Your task to perform on an android device: Open Google Image 0: 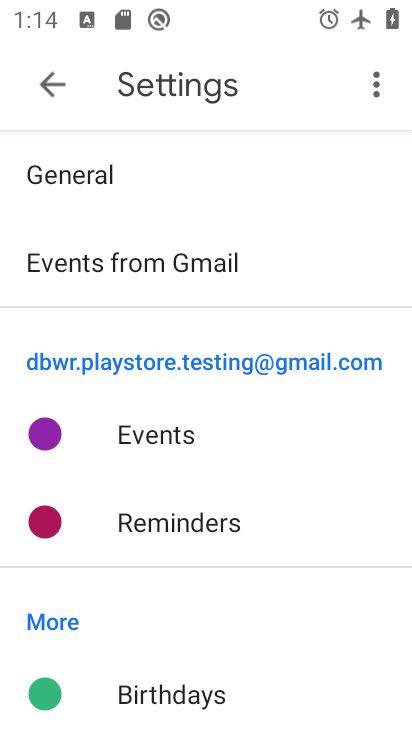
Step 0: press home button
Your task to perform on an android device: Open Google Image 1: 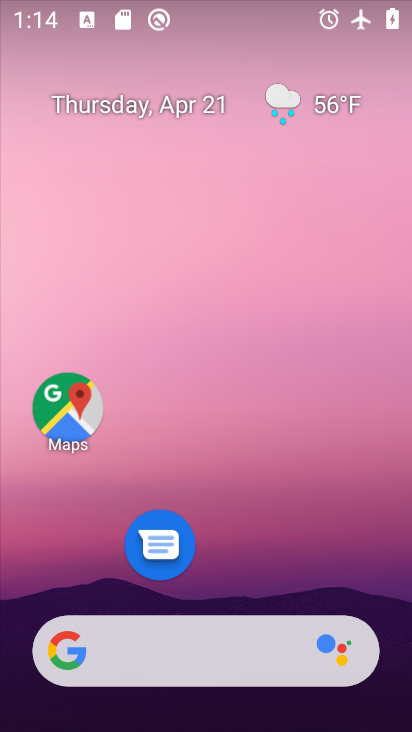
Step 1: drag from (240, 421) to (284, 189)
Your task to perform on an android device: Open Google Image 2: 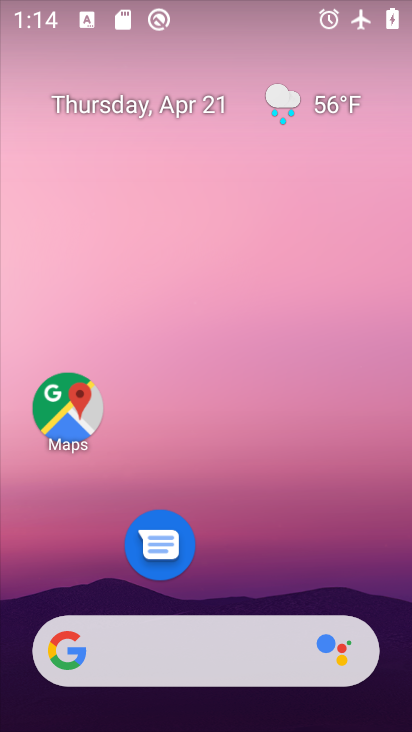
Step 2: drag from (239, 551) to (272, 288)
Your task to perform on an android device: Open Google Image 3: 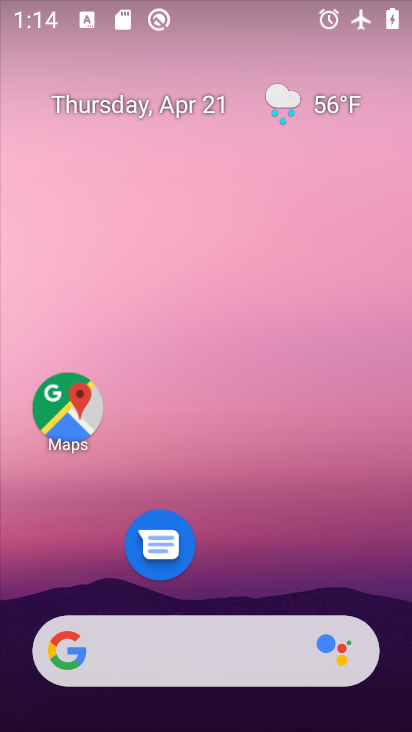
Step 3: drag from (235, 479) to (259, 316)
Your task to perform on an android device: Open Google Image 4: 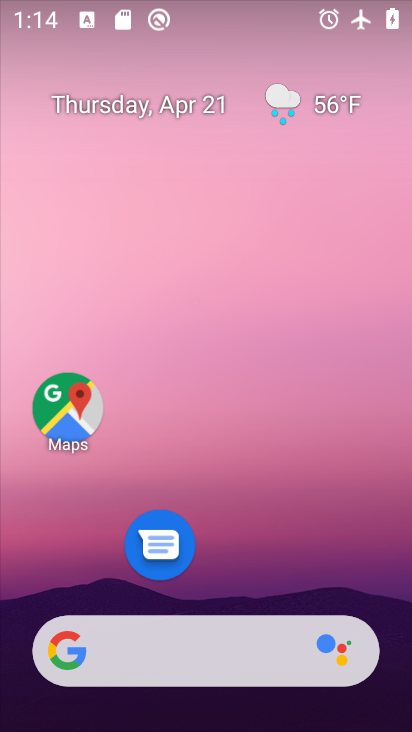
Step 4: drag from (212, 520) to (267, 237)
Your task to perform on an android device: Open Google Image 5: 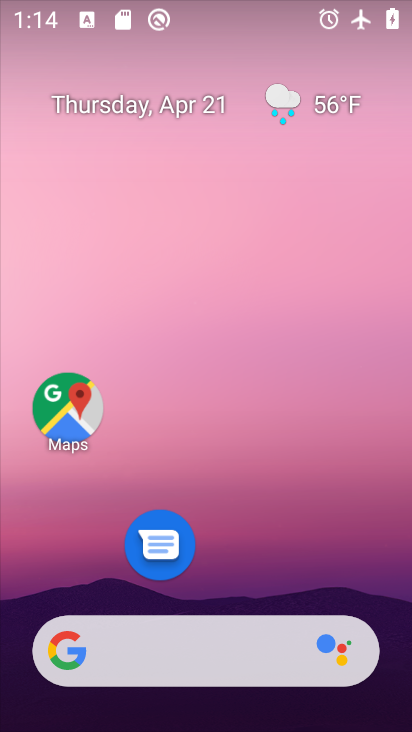
Step 5: drag from (246, 621) to (277, 293)
Your task to perform on an android device: Open Google Image 6: 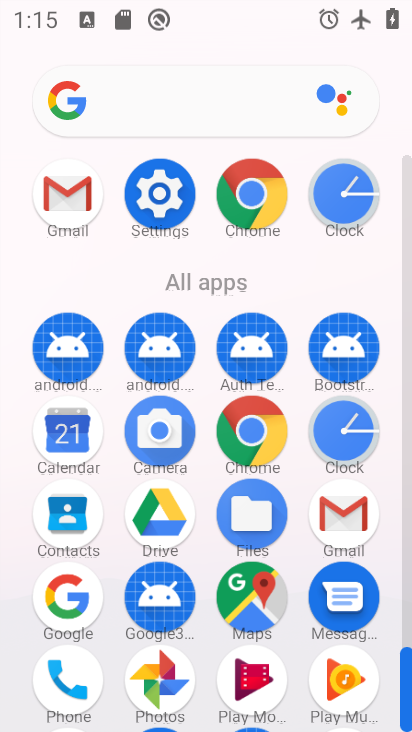
Step 6: click (406, 584)
Your task to perform on an android device: Open Google Image 7: 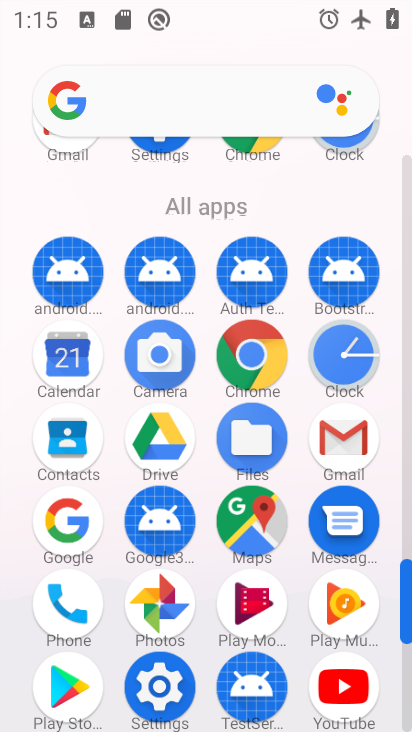
Step 7: click (65, 535)
Your task to perform on an android device: Open Google Image 8: 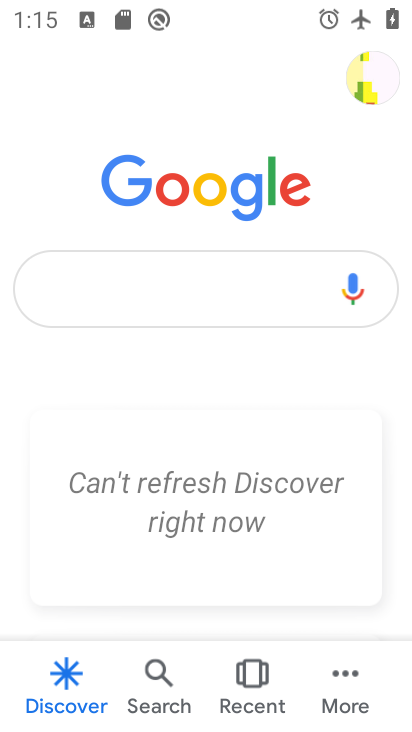
Step 8: task complete